Your task to perform on an android device: turn on airplane mode Image 0: 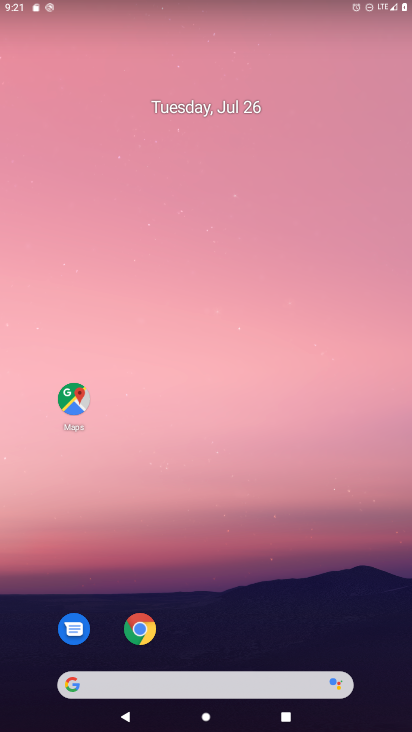
Step 0: drag from (245, 676) to (179, 49)
Your task to perform on an android device: turn on airplane mode Image 1: 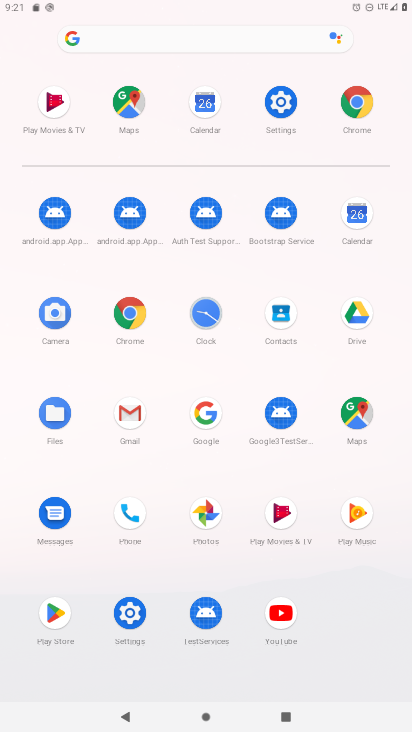
Step 1: click (127, 610)
Your task to perform on an android device: turn on airplane mode Image 2: 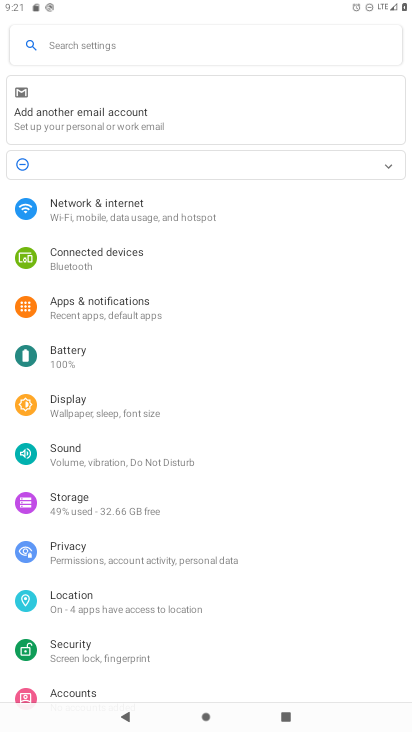
Step 2: click (87, 224)
Your task to perform on an android device: turn on airplane mode Image 3: 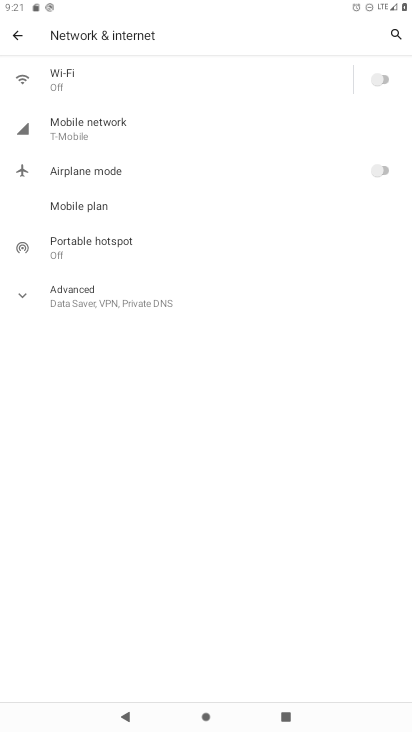
Step 3: click (377, 170)
Your task to perform on an android device: turn on airplane mode Image 4: 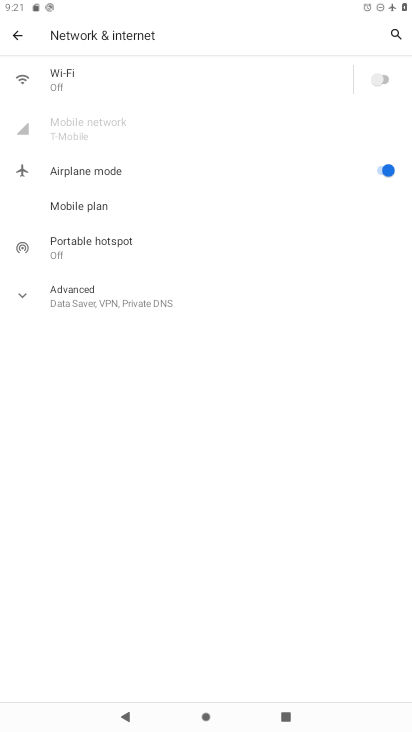
Step 4: task complete